Your task to perform on an android device: change the clock style Image 0: 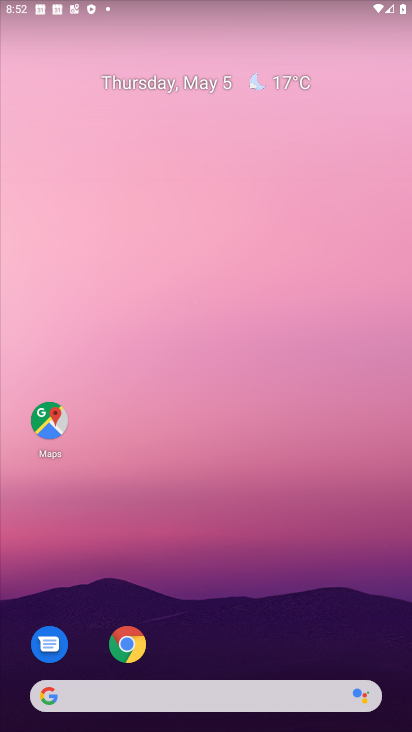
Step 0: drag from (197, 644) to (214, 199)
Your task to perform on an android device: change the clock style Image 1: 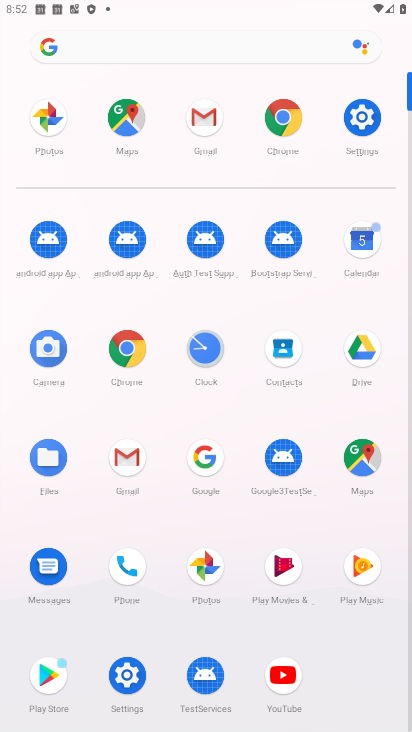
Step 1: click (197, 344)
Your task to perform on an android device: change the clock style Image 2: 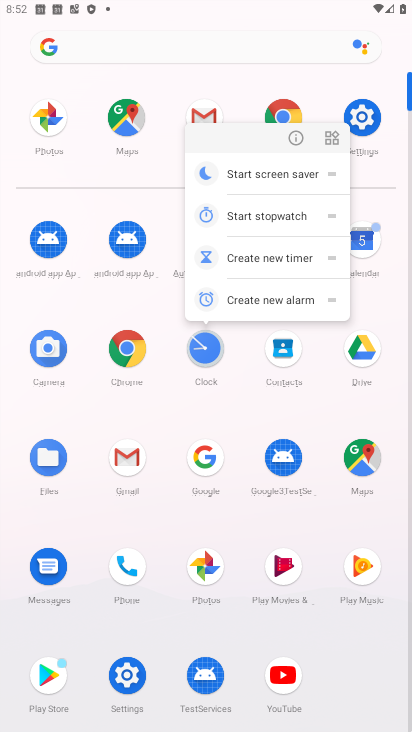
Step 2: click (296, 138)
Your task to perform on an android device: change the clock style Image 3: 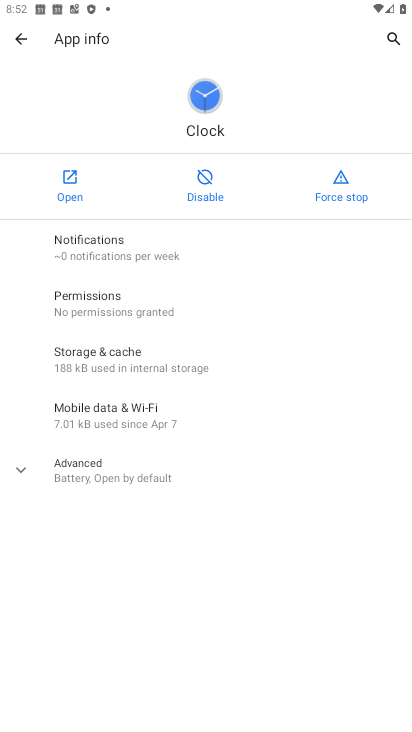
Step 3: click (69, 199)
Your task to perform on an android device: change the clock style Image 4: 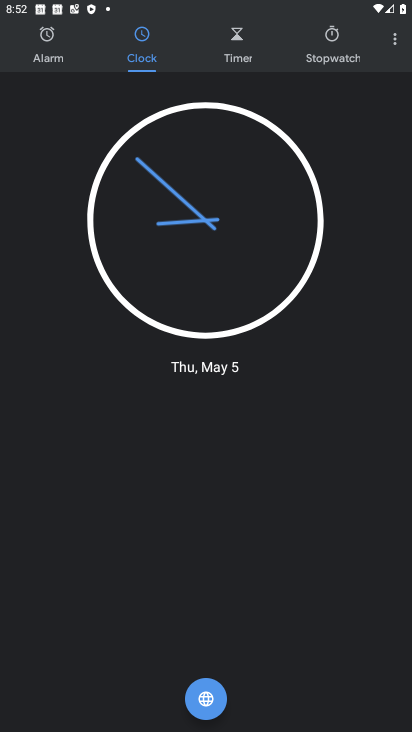
Step 4: click (233, 60)
Your task to perform on an android device: change the clock style Image 5: 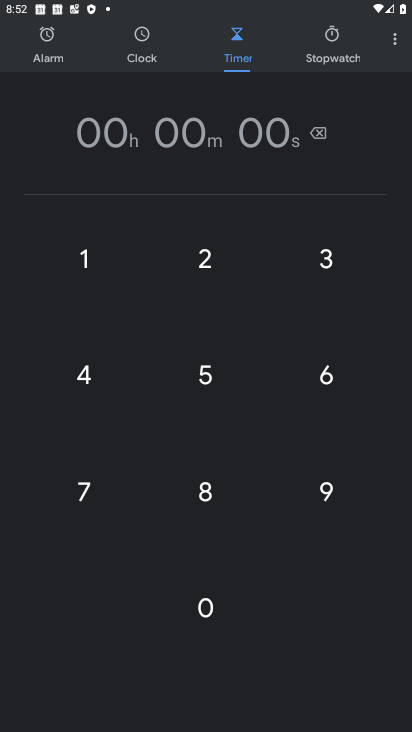
Step 5: click (167, 51)
Your task to perform on an android device: change the clock style Image 6: 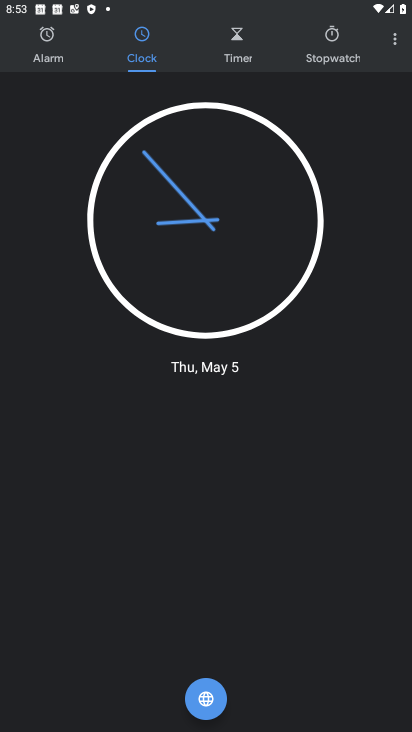
Step 6: click (235, 53)
Your task to perform on an android device: change the clock style Image 7: 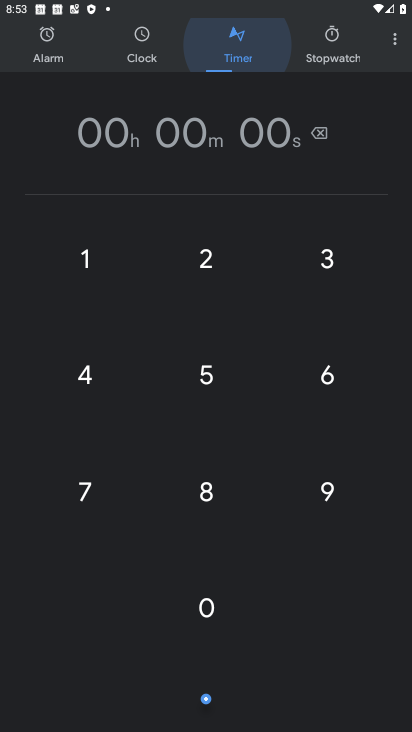
Step 7: click (392, 32)
Your task to perform on an android device: change the clock style Image 8: 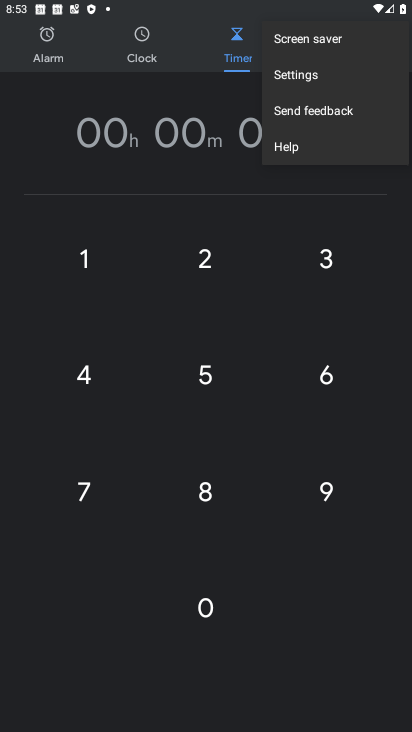
Step 8: click (140, 34)
Your task to perform on an android device: change the clock style Image 9: 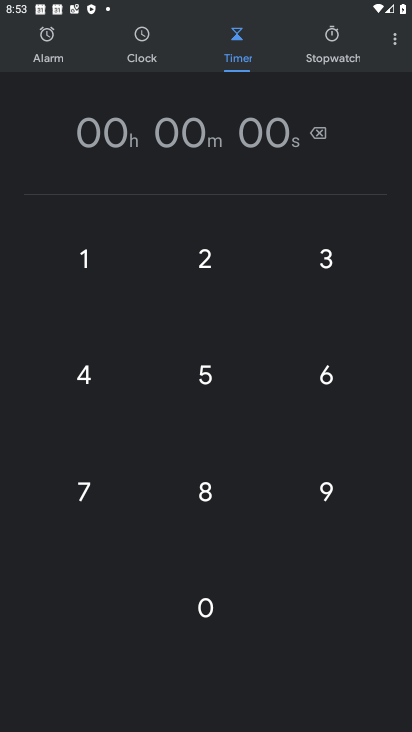
Step 9: click (140, 34)
Your task to perform on an android device: change the clock style Image 10: 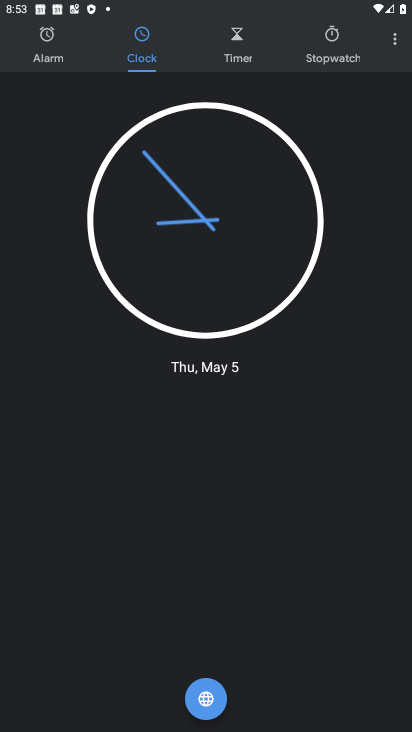
Step 10: click (330, 54)
Your task to perform on an android device: change the clock style Image 11: 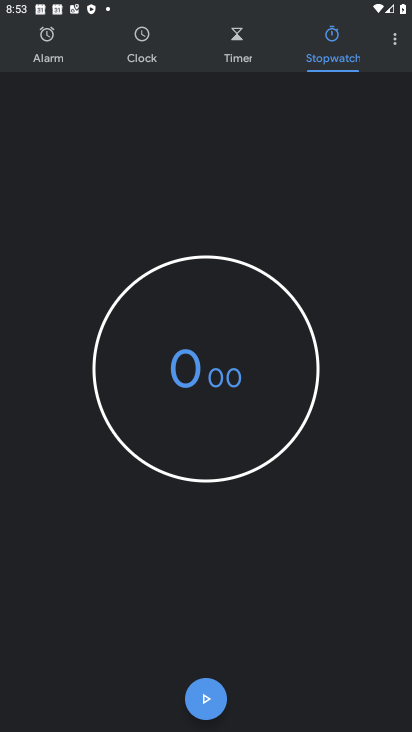
Step 11: click (211, 45)
Your task to perform on an android device: change the clock style Image 12: 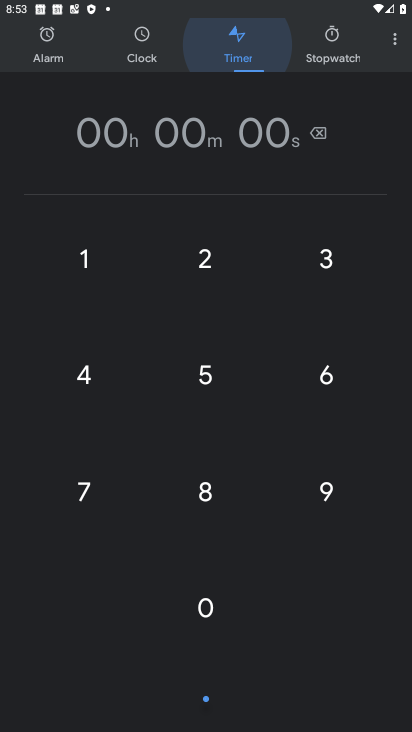
Step 12: click (181, 41)
Your task to perform on an android device: change the clock style Image 13: 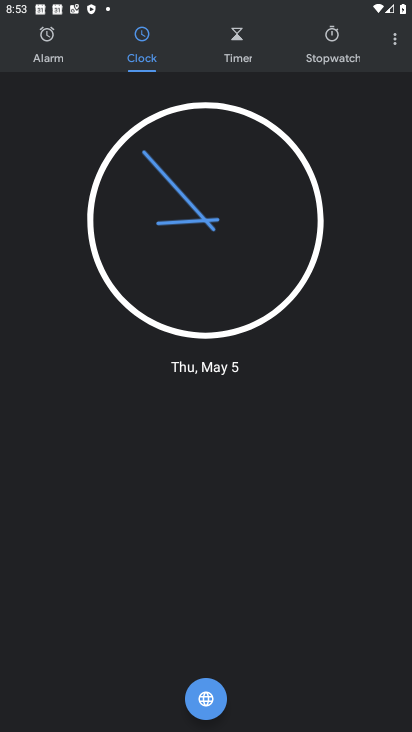
Step 13: click (238, 27)
Your task to perform on an android device: change the clock style Image 14: 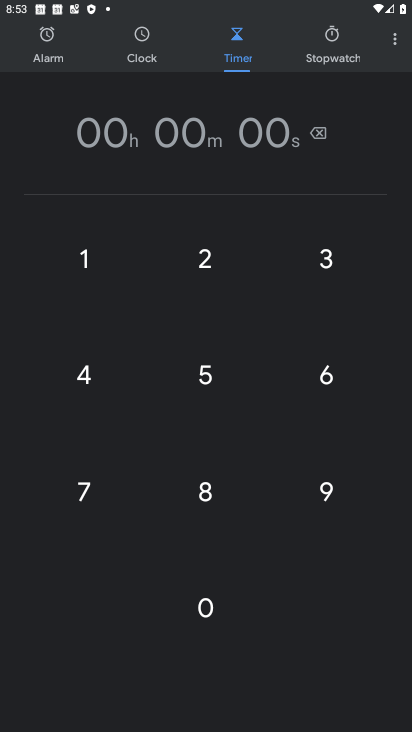
Step 14: click (400, 34)
Your task to perform on an android device: change the clock style Image 15: 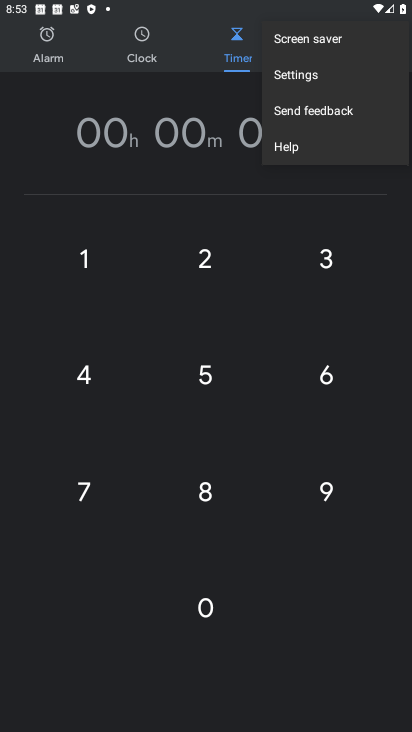
Step 15: click (307, 72)
Your task to perform on an android device: change the clock style Image 16: 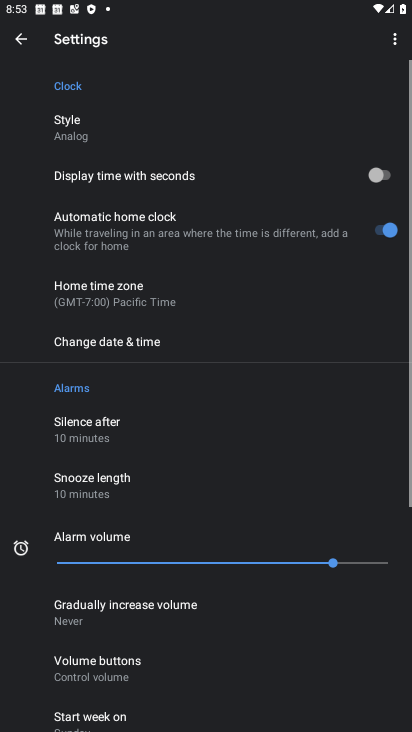
Step 16: click (147, 117)
Your task to perform on an android device: change the clock style Image 17: 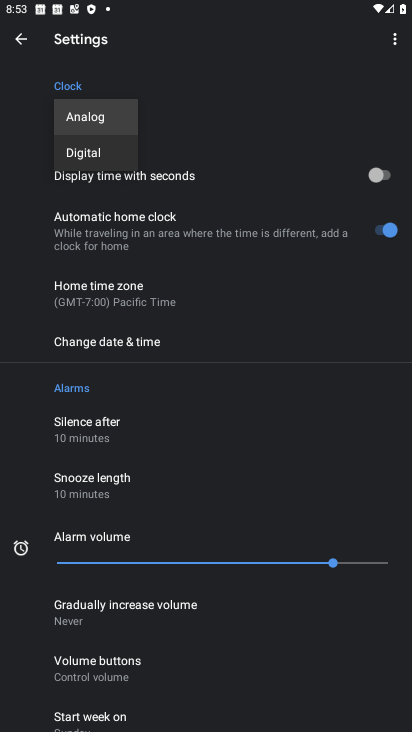
Step 17: click (83, 158)
Your task to perform on an android device: change the clock style Image 18: 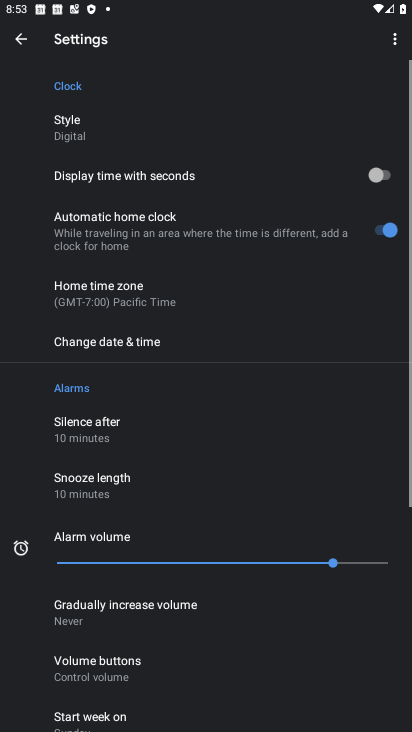
Step 18: task complete